Your task to perform on an android device: remove spam from my inbox in the gmail app Image 0: 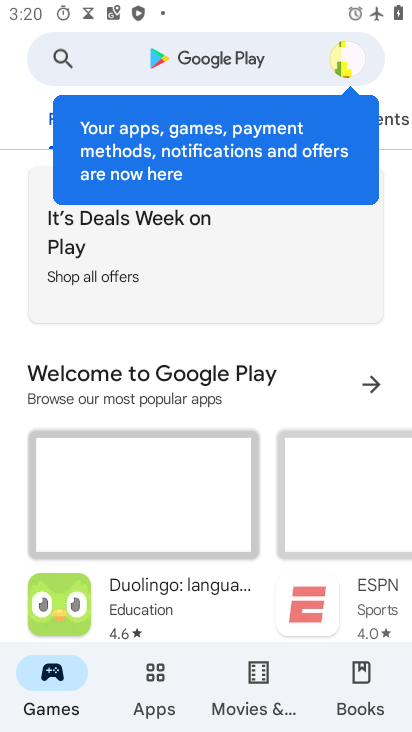
Step 0: press back button
Your task to perform on an android device: remove spam from my inbox in the gmail app Image 1: 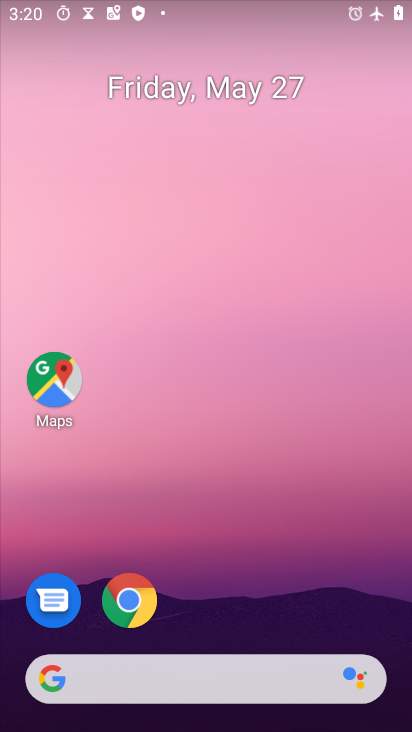
Step 1: drag from (287, 564) to (208, 38)
Your task to perform on an android device: remove spam from my inbox in the gmail app Image 2: 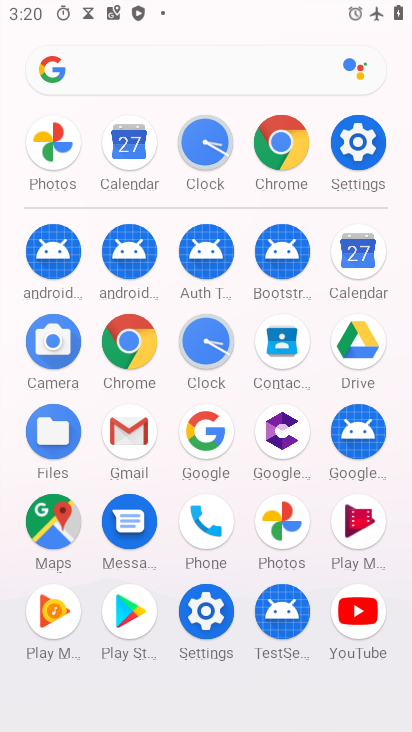
Step 2: click (122, 425)
Your task to perform on an android device: remove spam from my inbox in the gmail app Image 3: 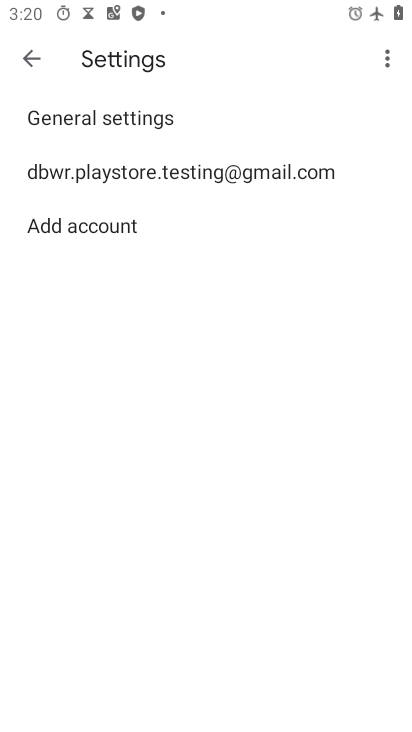
Step 3: click (32, 60)
Your task to perform on an android device: remove spam from my inbox in the gmail app Image 4: 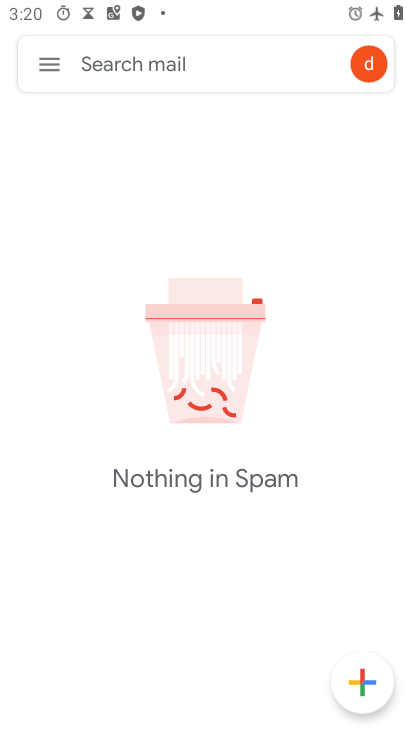
Step 4: click (32, 60)
Your task to perform on an android device: remove spam from my inbox in the gmail app Image 5: 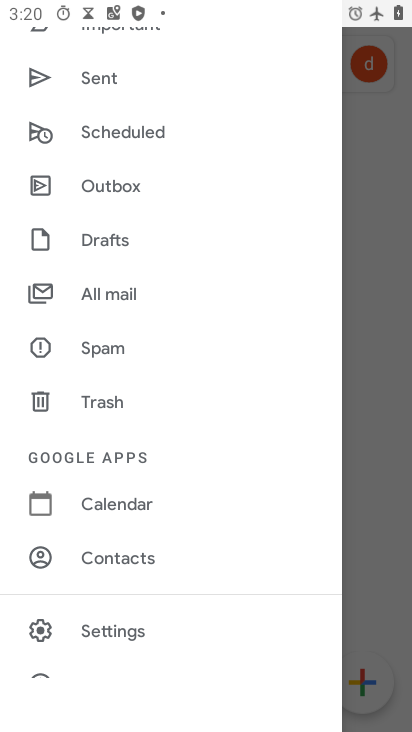
Step 5: click (124, 346)
Your task to perform on an android device: remove spam from my inbox in the gmail app Image 6: 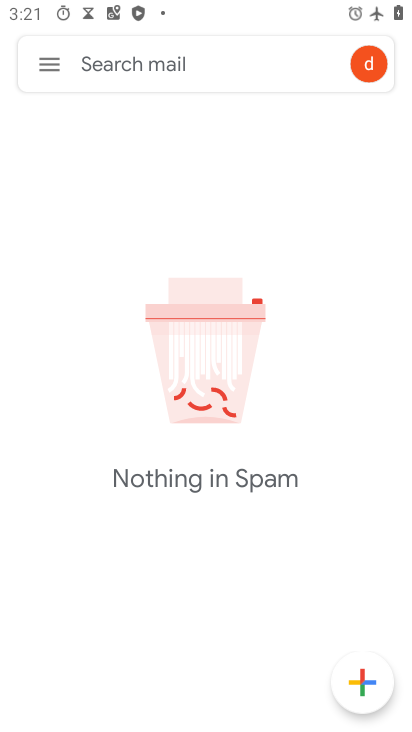
Step 6: task complete